Your task to perform on an android device: Open Youtube and go to "Your channel" Image 0: 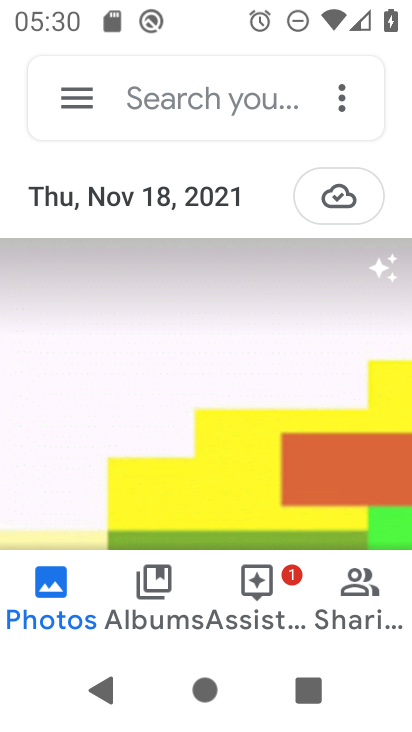
Step 0: press home button
Your task to perform on an android device: Open Youtube and go to "Your channel" Image 1: 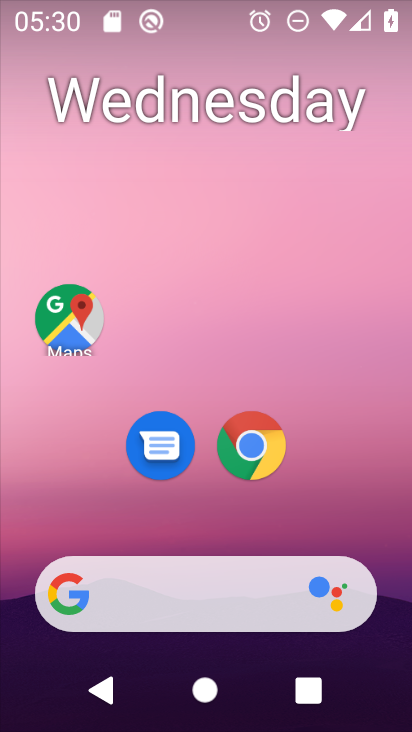
Step 1: drag from (224, 495) to (241, 32)
Your task to perform on an android device: Open Youtube and go to "Your channel" Image 2: 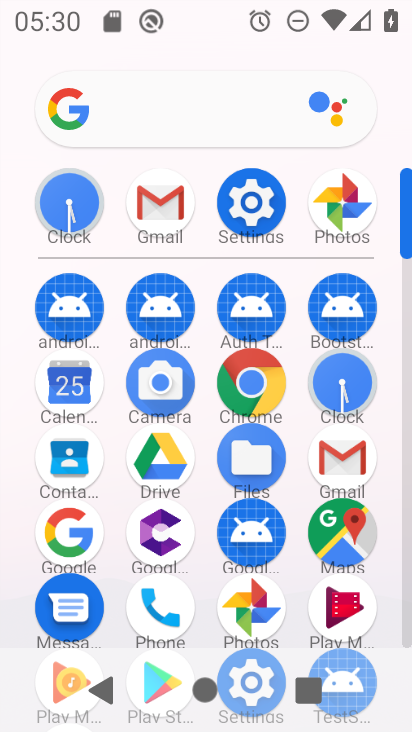
Step 2: drag from (194, 631) to (193, 172)
Your task to perform on an android device: Open Youtube and go to "Your channel" Image 3: 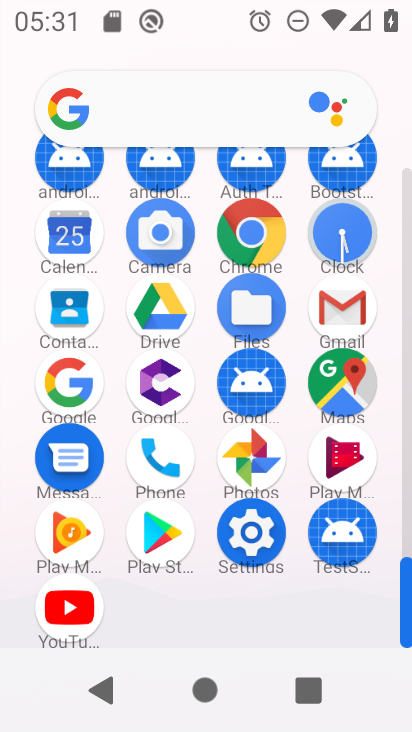
Step 3: click (74, 597)
Your task to perform on an android device: Open Youtube and go to "Your channel" Image 4: 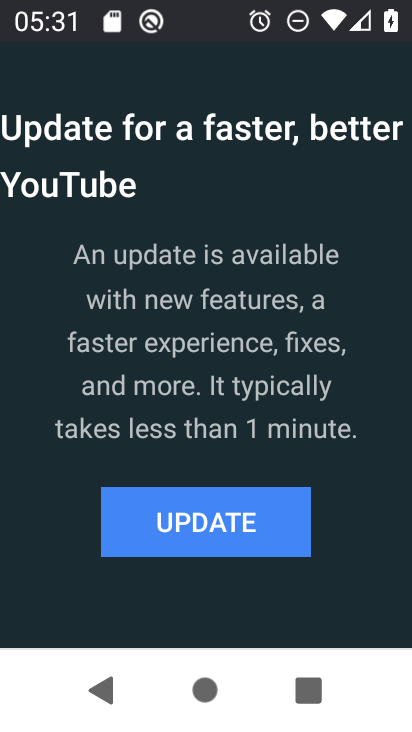
Step 4: click (153, 542)
Your task to perform on an android device: Open Youtube and go to "Your channel" Image 5: 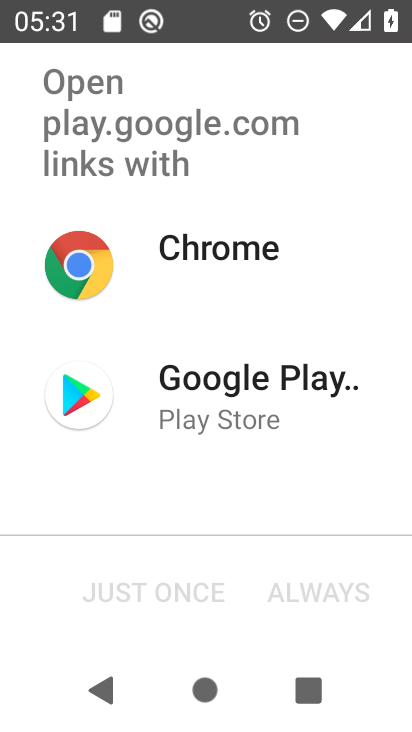
Step 5: click (212, 396)
Your task to perform on an android device: Open Youtube and go to "Your channel" Image 6: 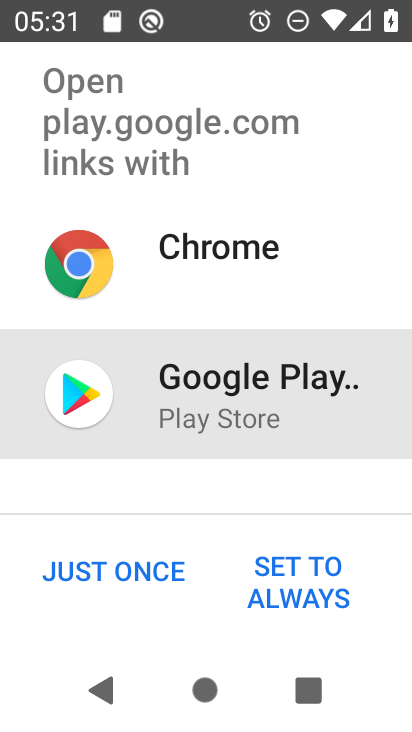
Step 6: click (68, 580)
Your task to perform on an android device: Open Youtube and go to "Your channel" Image 7: 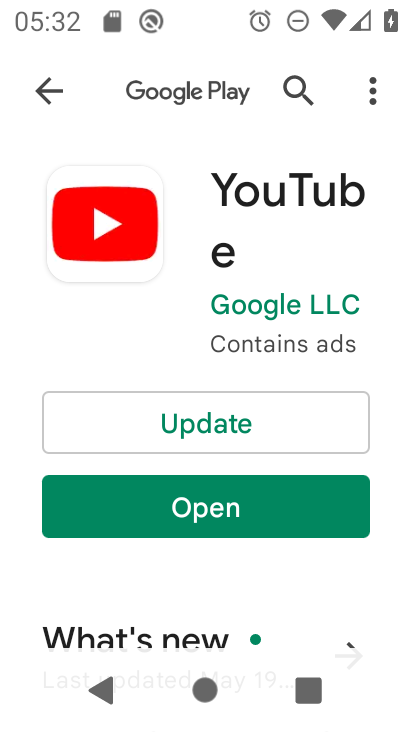
Step 7: click (182, 411)
Your task to perform on an android device: Open Youtube and go to "Your channel" Image 8: 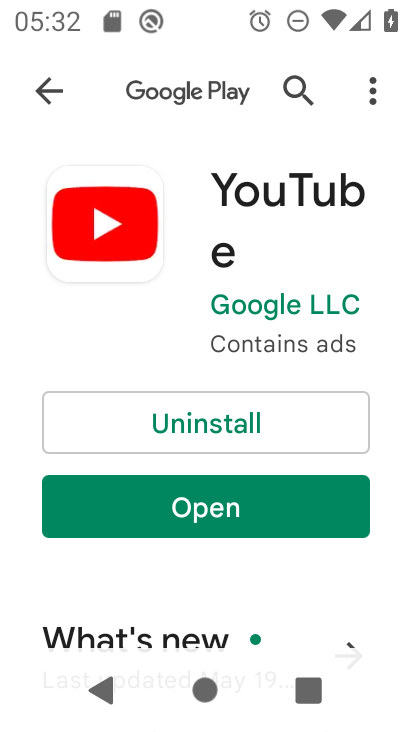
Step 8: click (241, 488)
Your task to perform on an android device: Open Youtube and go to "Your channel" Image 9: 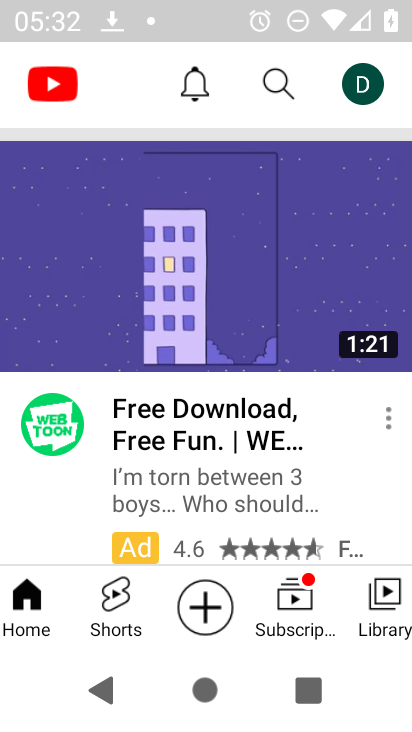
Step 9: click (276, 83)
Your task to perform on an android device: Open Youtube and go to "Your channel" Image 10: 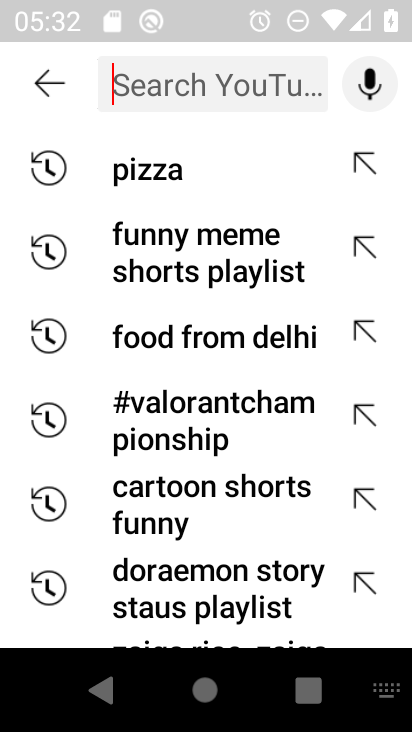
Step 10: type "your channrel"
Your task to perform on an android device: Open Youtube and go to "Your channel" Image 11: 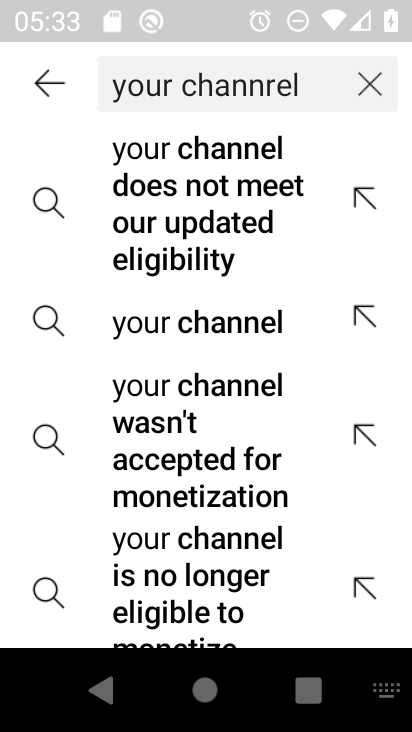
Step 11: click (124, 324)
Your task to perform on an android device: Open Youtube and go to "Your channel" Image 12: 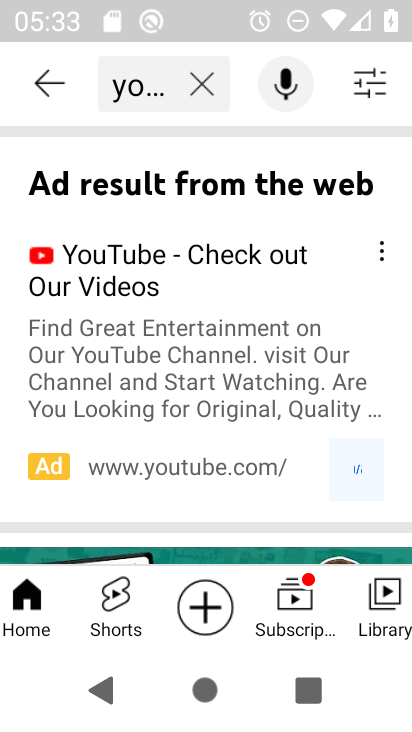
Step 12: task complete